Your task to perform on an android device: Go to Reddit.com Image 0: 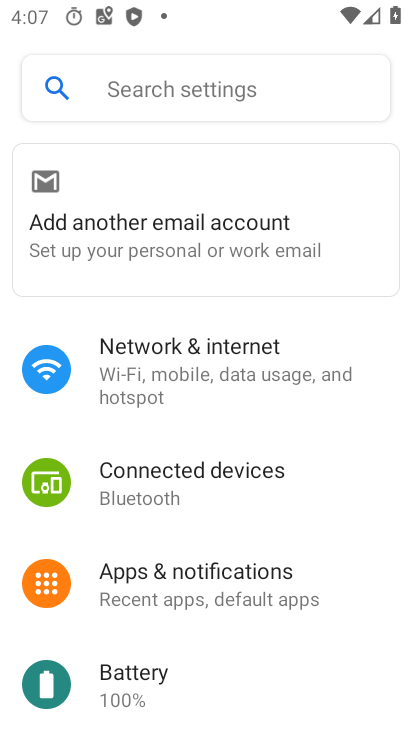
Step 0: press home button
Your task to perform on an android device: Go to Reddit.com Image 1: 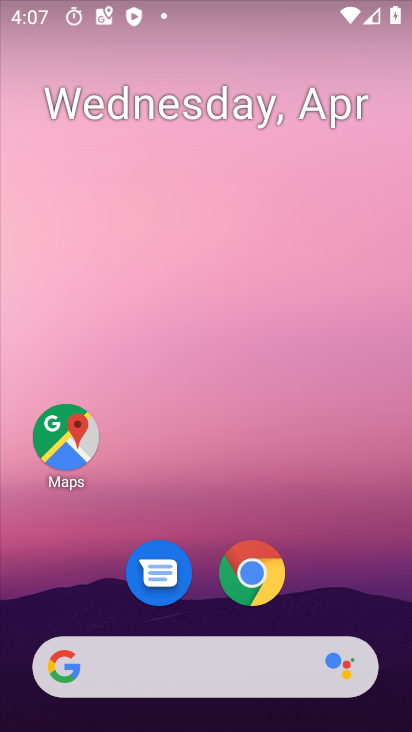
Step 1: click (240, 583)
Your task to perform on an android device: Go to Reddit.com Image 2: 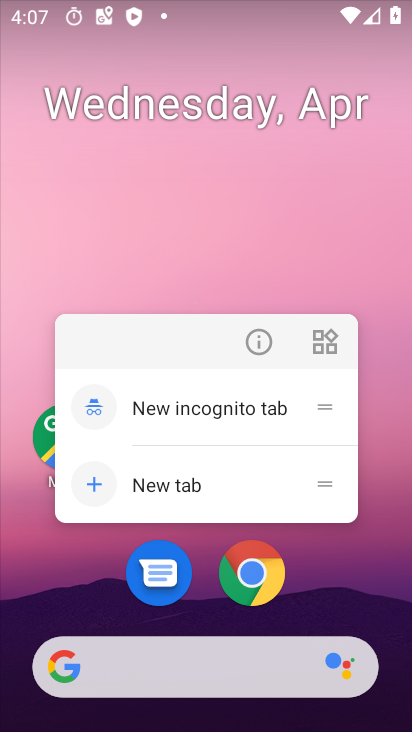
Step 2: click (255, 559)
Your task to perform on an android device: Go to Reddit.com Image 3: 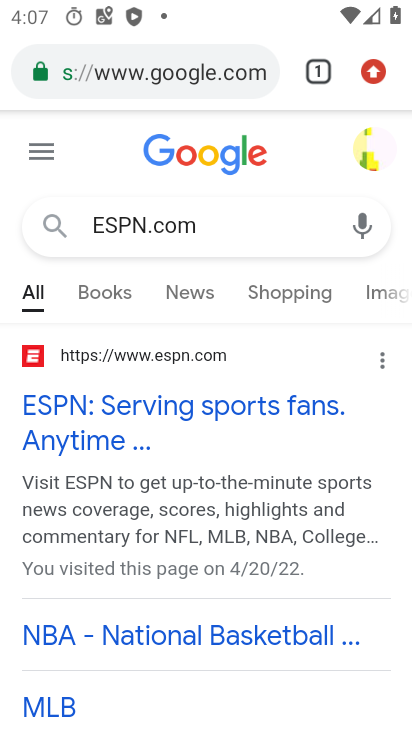
Step 3: click (255, 63)
Your task to perform on an android device: Go to Reddit.com Image 4: 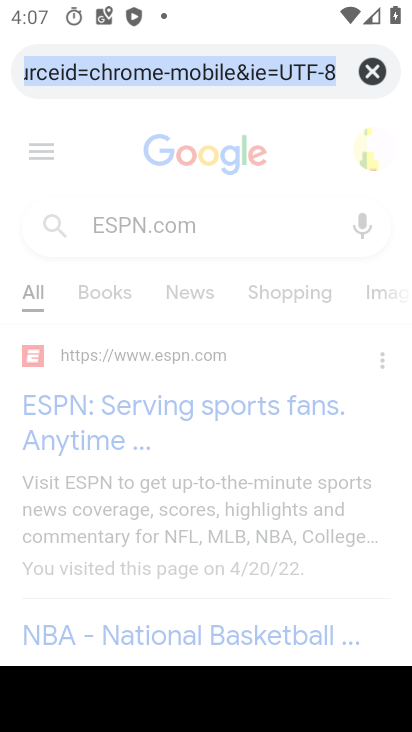
Step 4: click (358, 66)
Your task to perform on an android device: Go to Reddit.com Image 5: 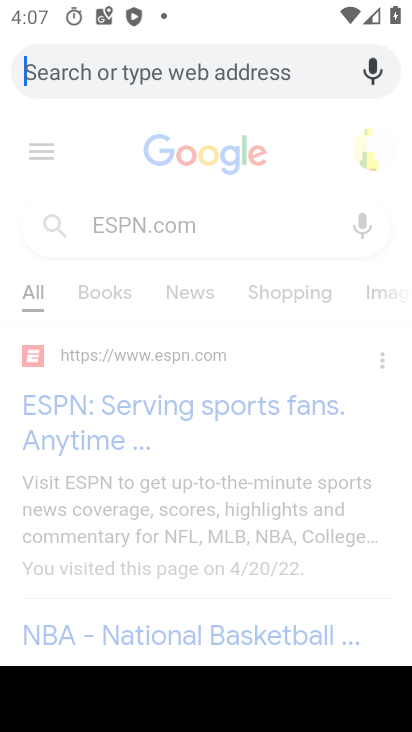
Step 5: type "Reddit.com"
Your task to perform on an android device: Go to Reddit.com Image 6: 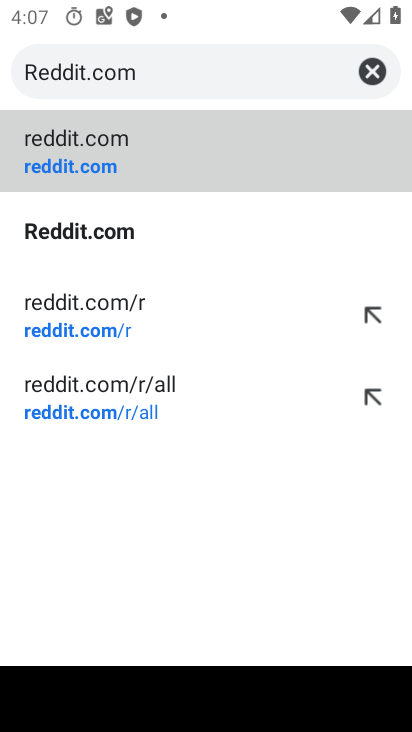
Step 6: click (70, 233)
Your task to perform on an android device: Go to Reddit.com Image 7: 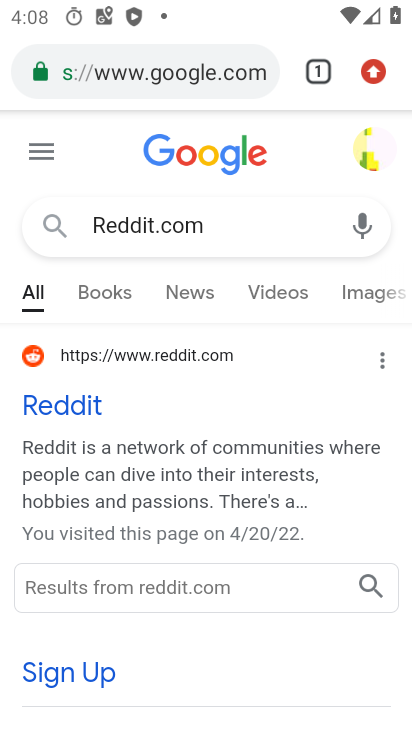
Step 7: task complete